Your task to perform on an android device: Open privacy settings Image 0: 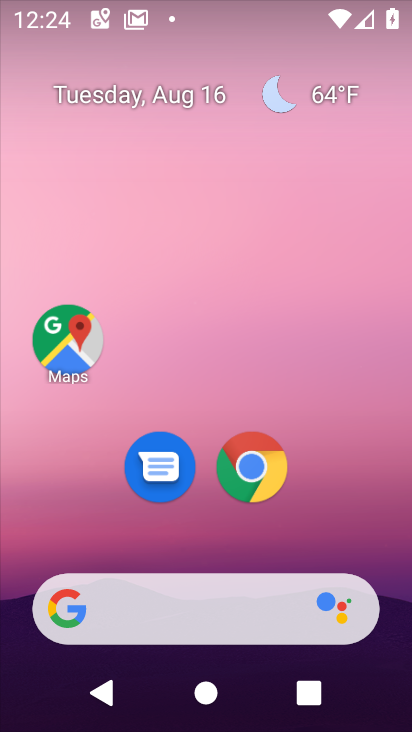
Step 0: press home button
Your task to perform on an android device: Open privacy settings Image 1: 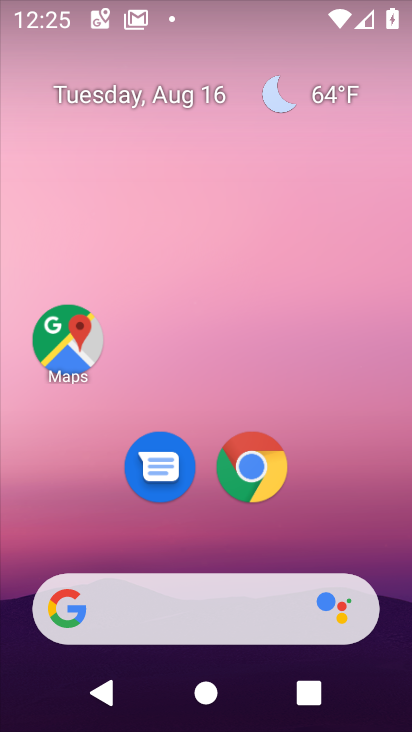
Step 1: drag from (335, 530) to (362, 150)
Your task to perform on an android device: Open privacy settings Image 2: 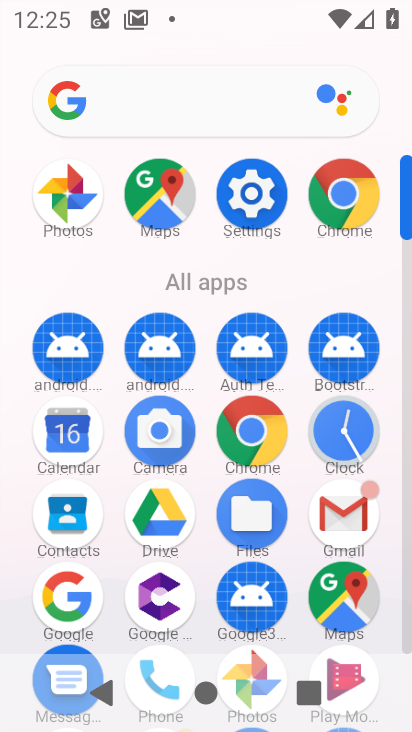
Step 2: click (251, 192)
Your task to perform on an android device: Open privacy settings Image 3: 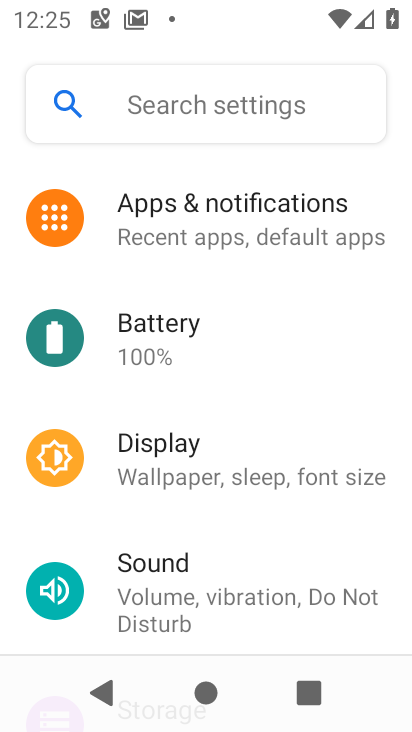
Step 3: drag from (361, 417) to (375, 352)
Your task to perform on an android device: Open privacy settings Image 4: 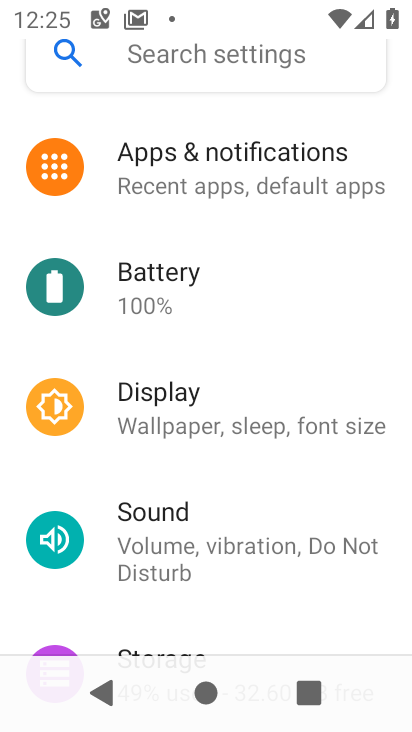
Step 4: drag from (368, 468) to (371, 427)
Your task to perform on an android device: Open privacy settings Image 5: 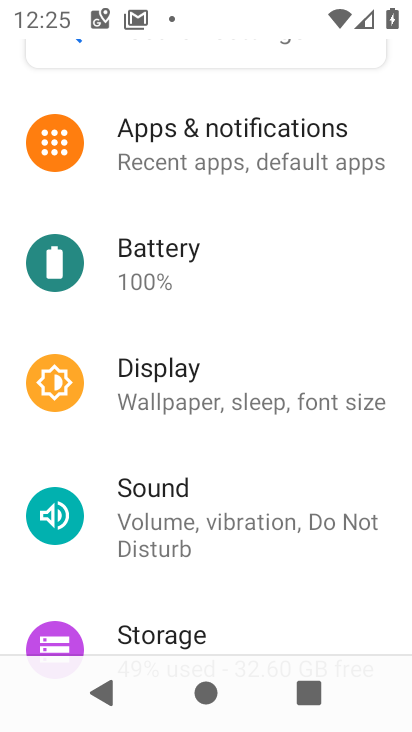
Step 5: drag from (376, 499) to (379, 394)
Your task to perform on an android device: Open privacy settings Image 6: 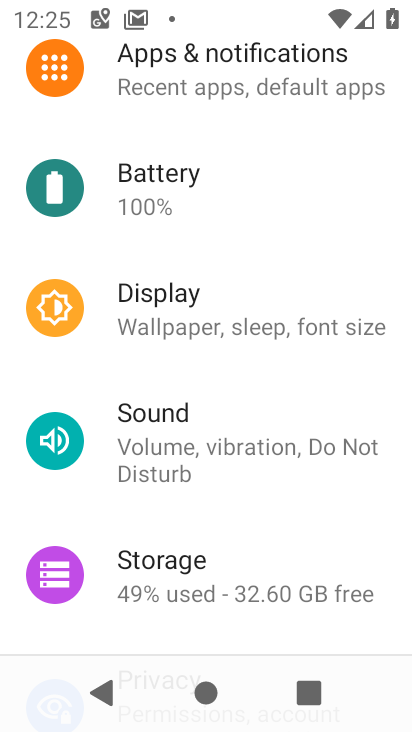
Step 6: drag from (353, 496) to (362, 406)
Your task to perform on an android device: Open privacy settings Image 7: 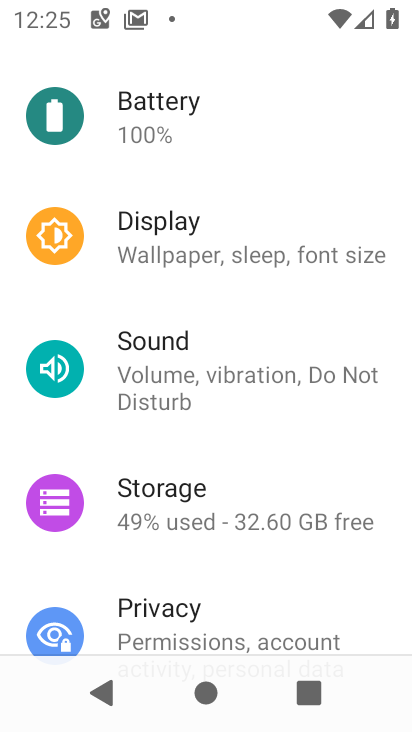
Step 7: drag from (365, 530) to (381, 430)
Your task to perform on an android device: Open privacy settings Image 8: 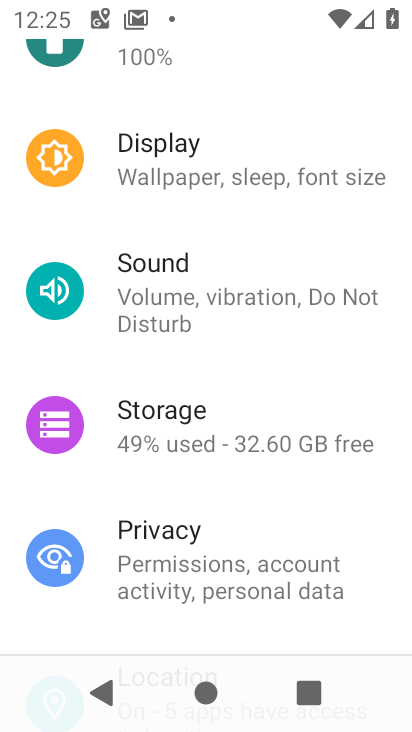
Step 8: drag from (358, 566) to (377, 433)
Your task to perform on an android device: Open privacy settings Image 9: 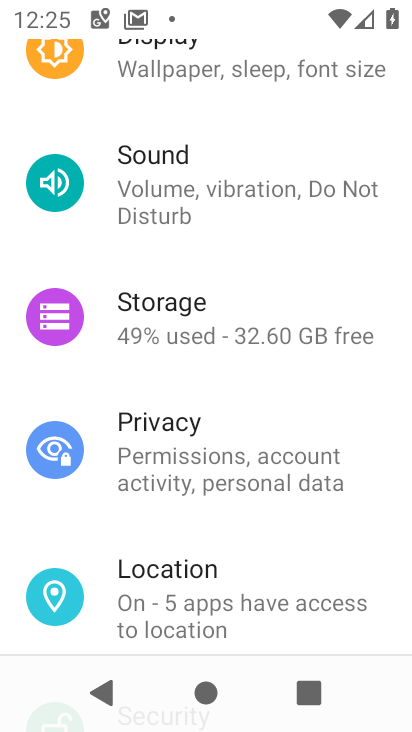
Step 9: drag from (360, 554) to (370, 457)
Your task to perform on an android device: Open privacy settings Image 10: 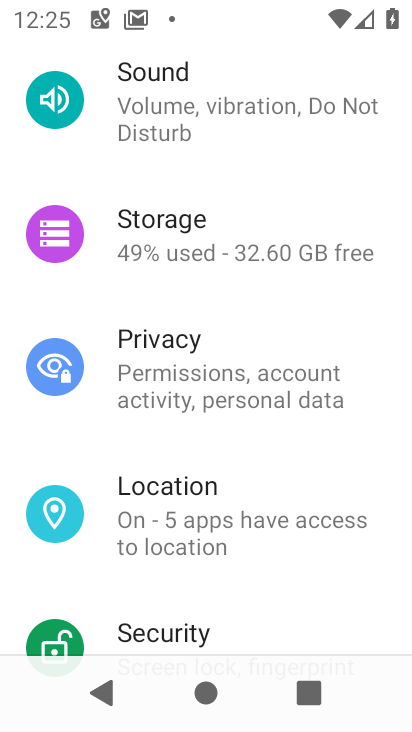
Step 10: drag from (365, 576) to (385, 467)
Your task to perform on an android device: Open privacy settings Image 11: 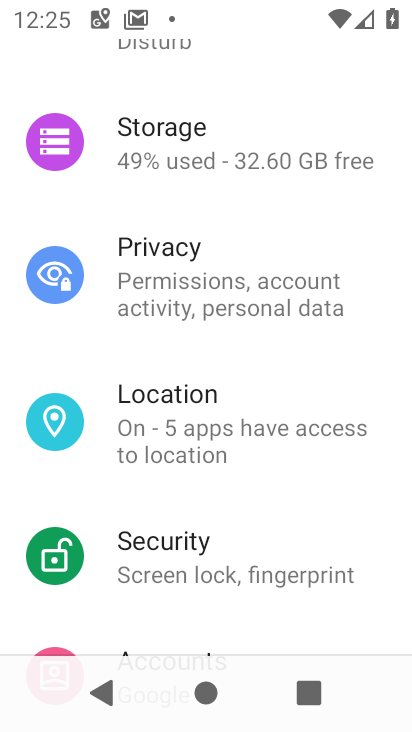
Step 11: drag from (363, 588) to (381, 480)
Your task to perform on an android device: Open privacy settings Image 12: 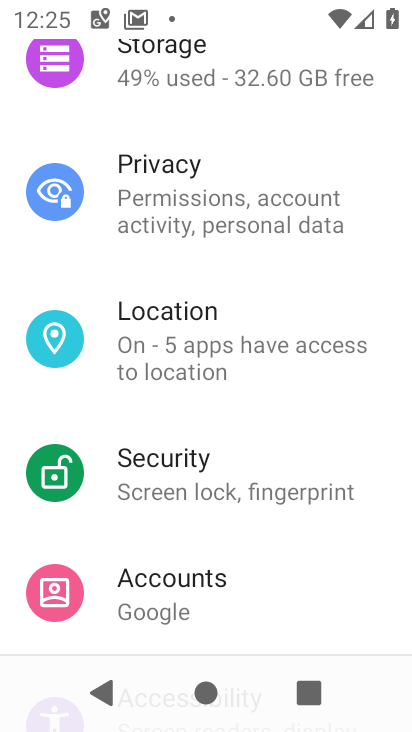
Step 12: click (321, 225)
Your task to perform on an android device: Open privacy settings Image 13: 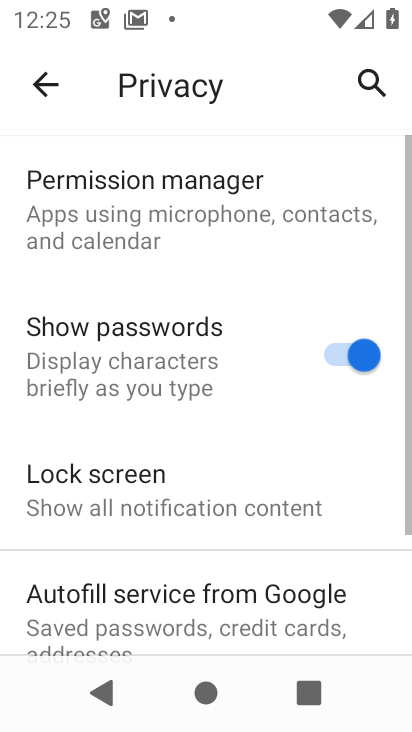
Step 13: drag from (284, 453) to (304, 308)
Your task to perform on an android device: Open privacy settings Image 14: 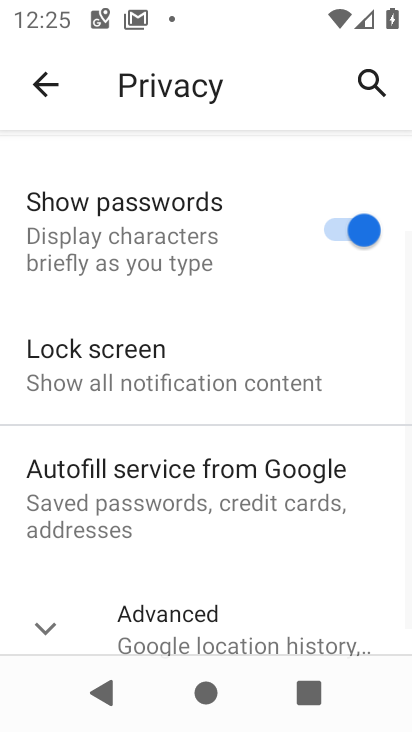
Step 14: drag from (293, 491) to (301, 354)
Your task to perform on an android device: Open privacy settings Image 15: 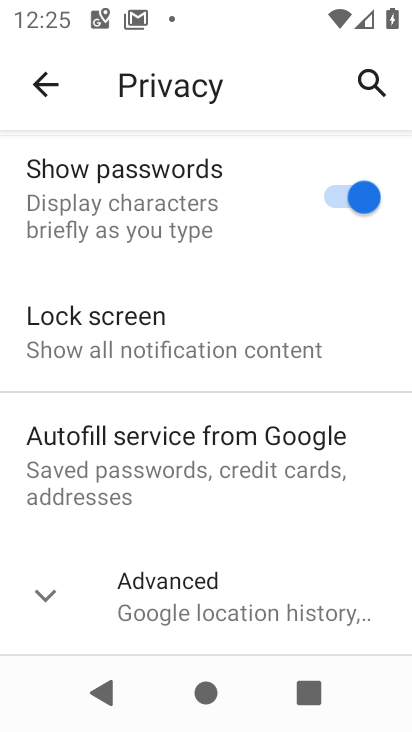
Step 15: click (285, 592)
Your task to perform on an android device: Open privacy settings Image 16: 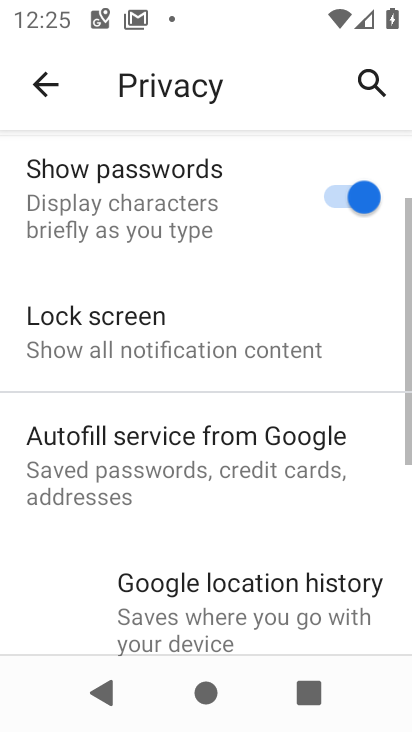
Step 16: task complete